Your task to perform on an android device: Go to settings Image 0: 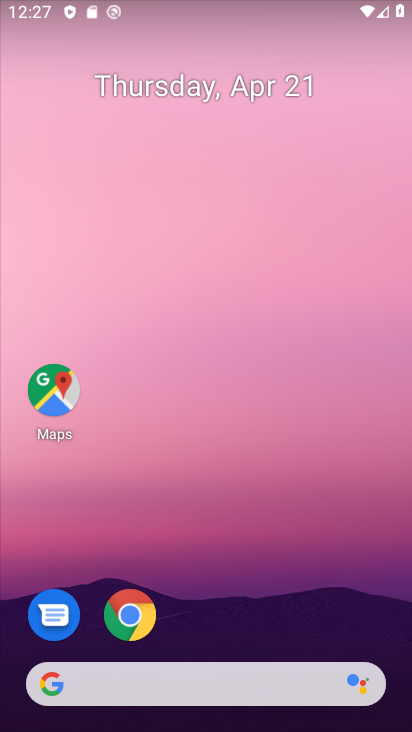
Step 0: drag from (250, 603) to (304, 26)
Your task to perform on an android device: Go to settings Image 1: 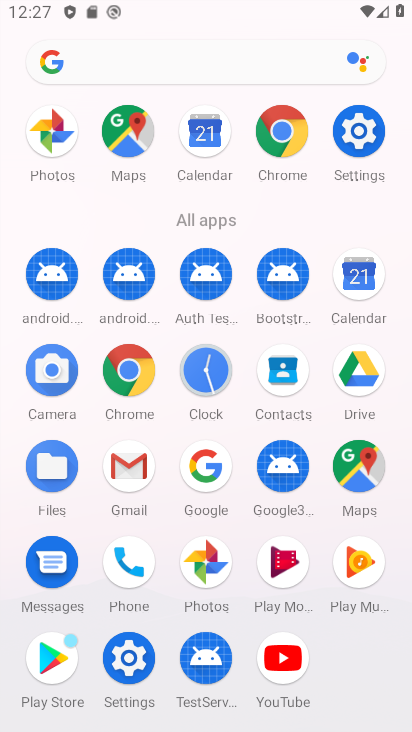
Step 1: click (370, 131)
Your task to perform on an android device: Go to settings Image 2: 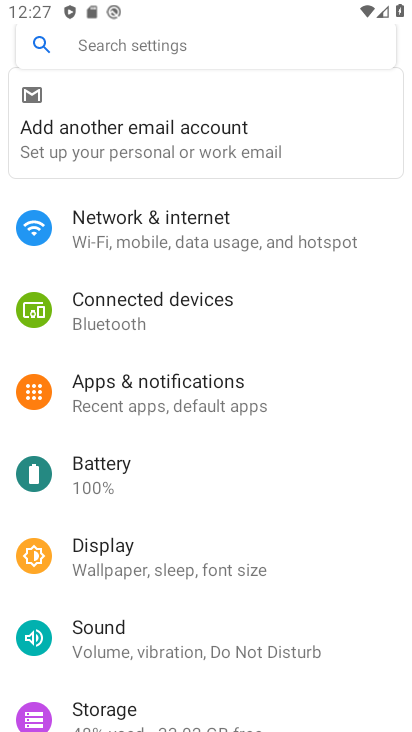
Step 2: task complete